Your task to perform on an android device: open app "Venmo" (install if not already installed) and go to login screen Image 0: 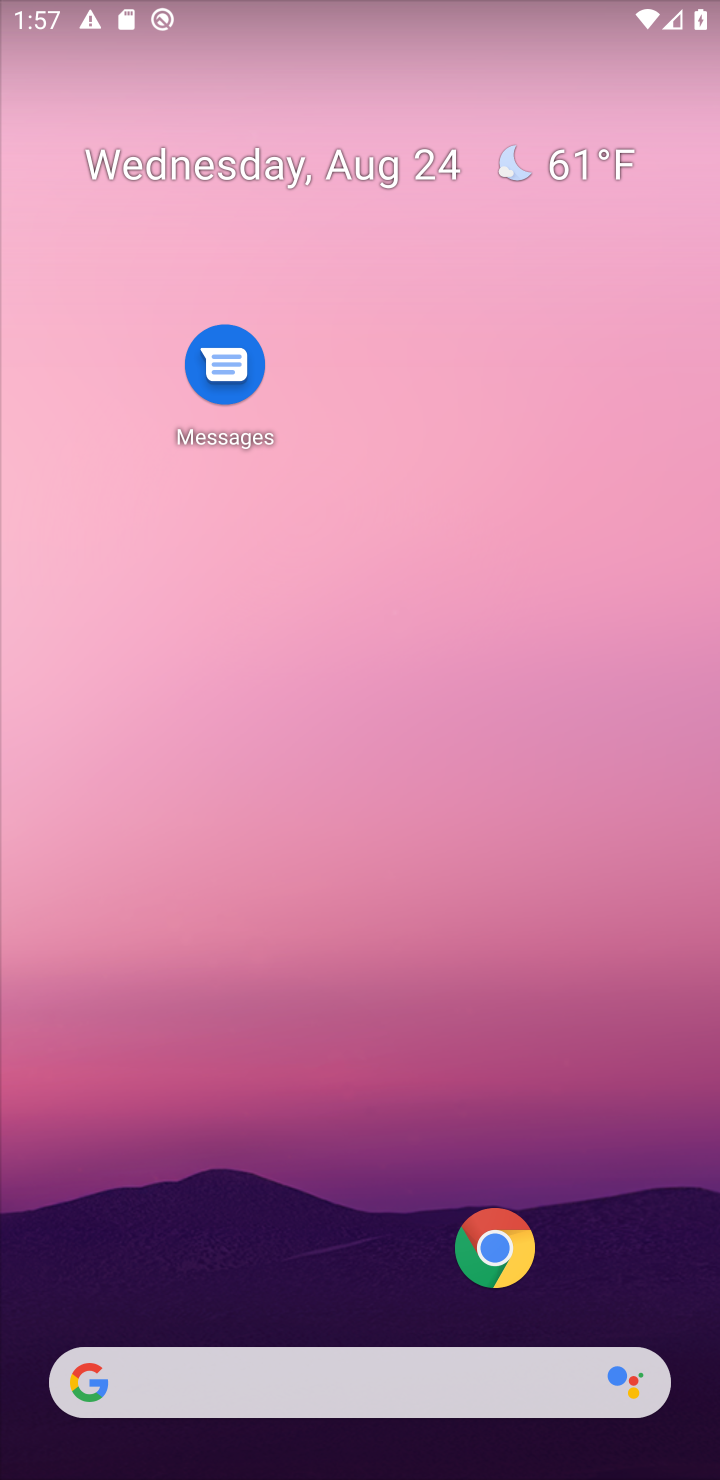
Step 0: drag from (333, 1243) to (347, 427)
Your task to perform on an android device: open app "Venmo" (install if not already installed) and go to login screen Image 1: 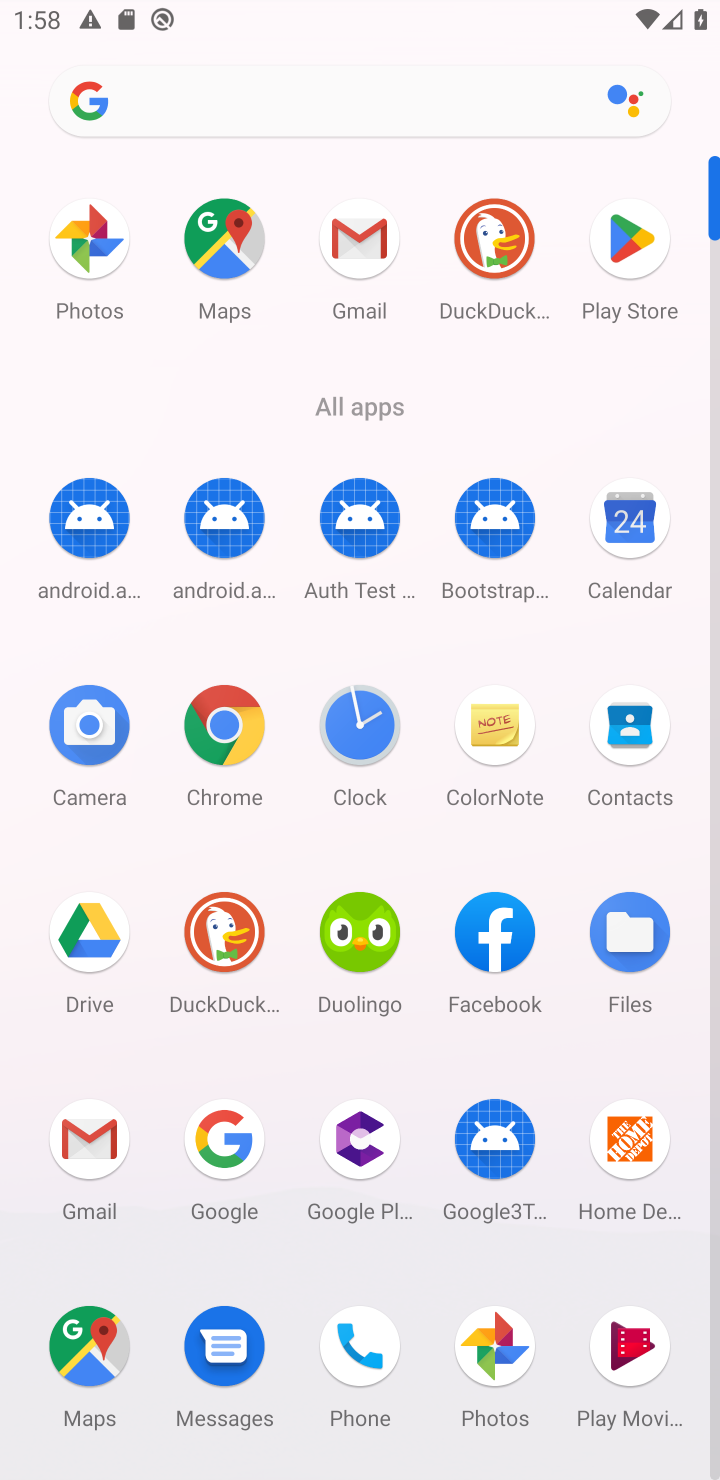
Step 1: click (615, 237)
Your task to perform on an android device: open app "Venmo" (install if not already installed) and go to login screen Image 2: 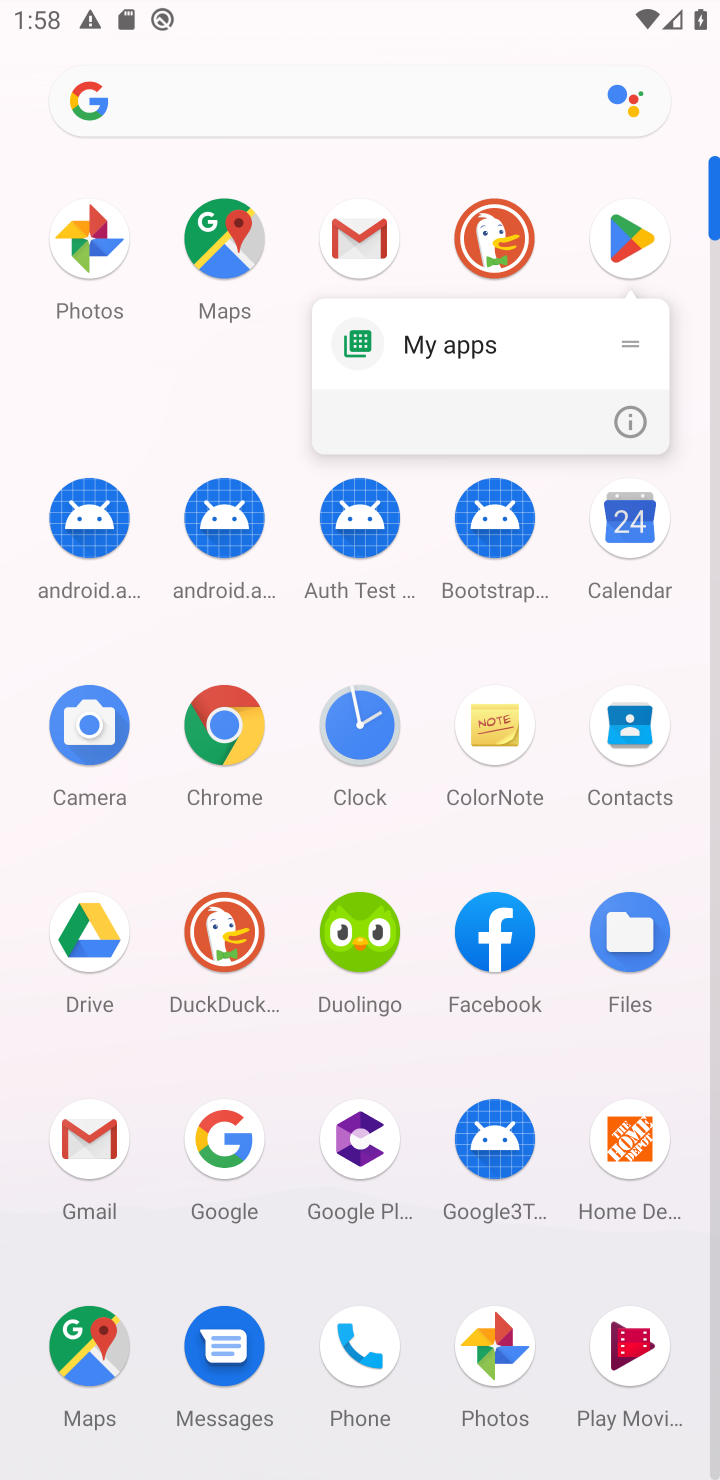
Step 2: click (615, 237)
Your task to perform on an android device: open app "Venmo" (install if not already installed) and go to login screen Image 3: 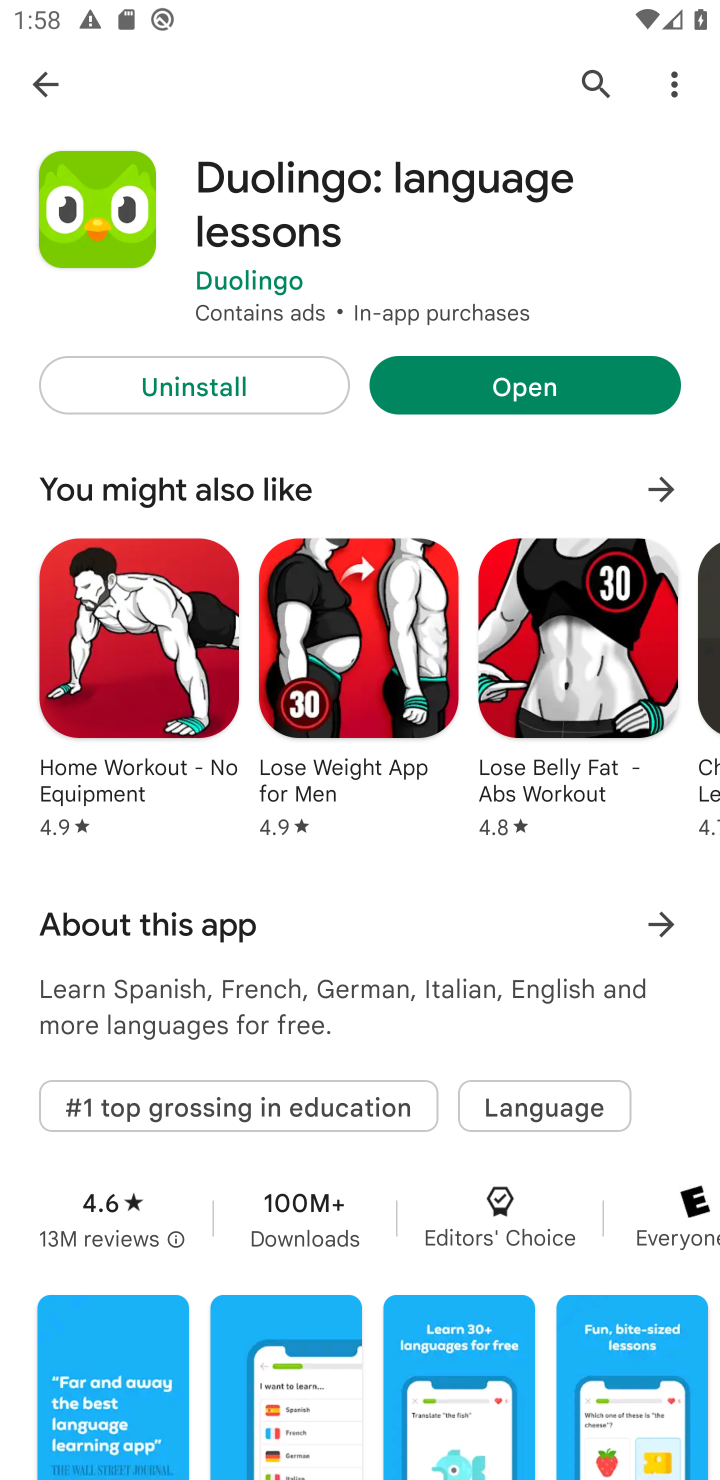
Step 3: click (66, 64)
Your task to perform on an android device: open app "Venmo" (install if not already installed) and go to login screen Image 4: 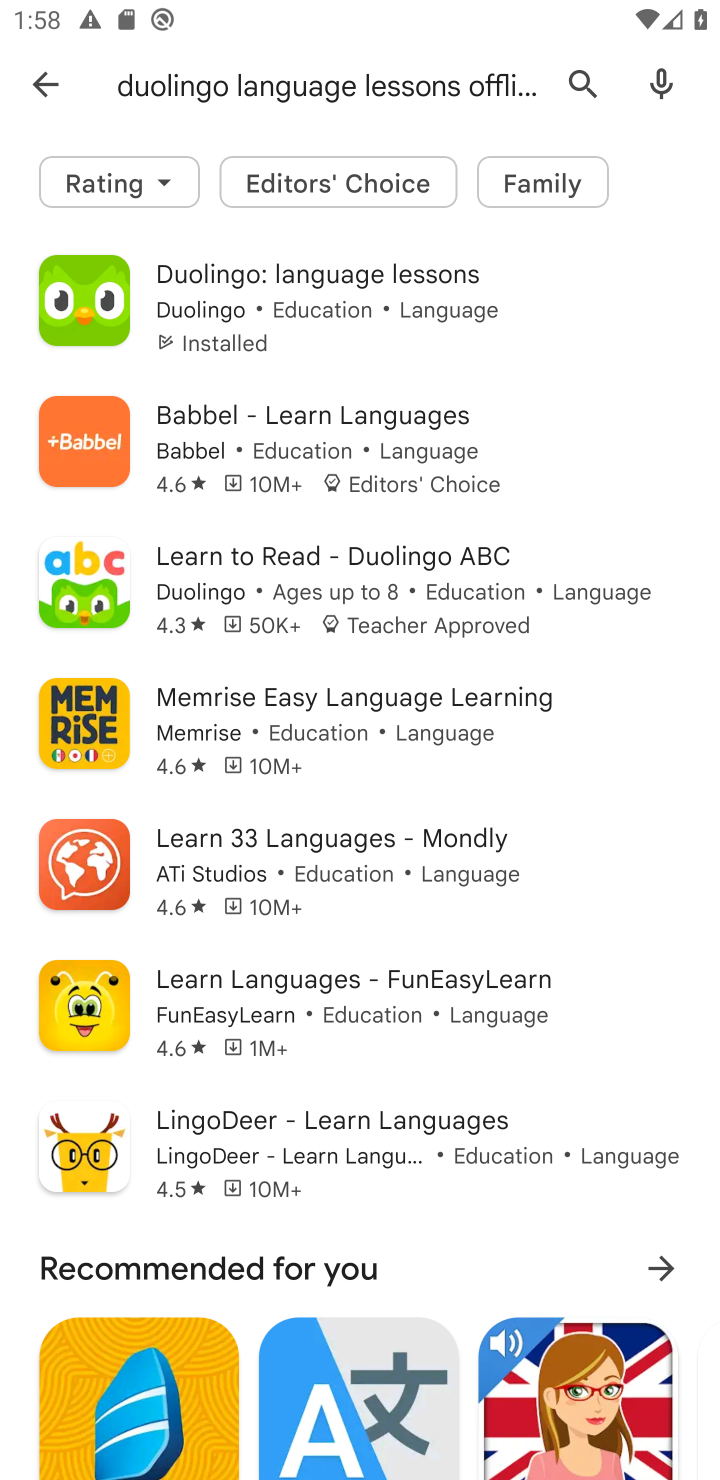
Step 4: click (62, 64)
Your task to perform on an android device: open app "Venmo" (install if not already installed) and go to login screen Image 5: 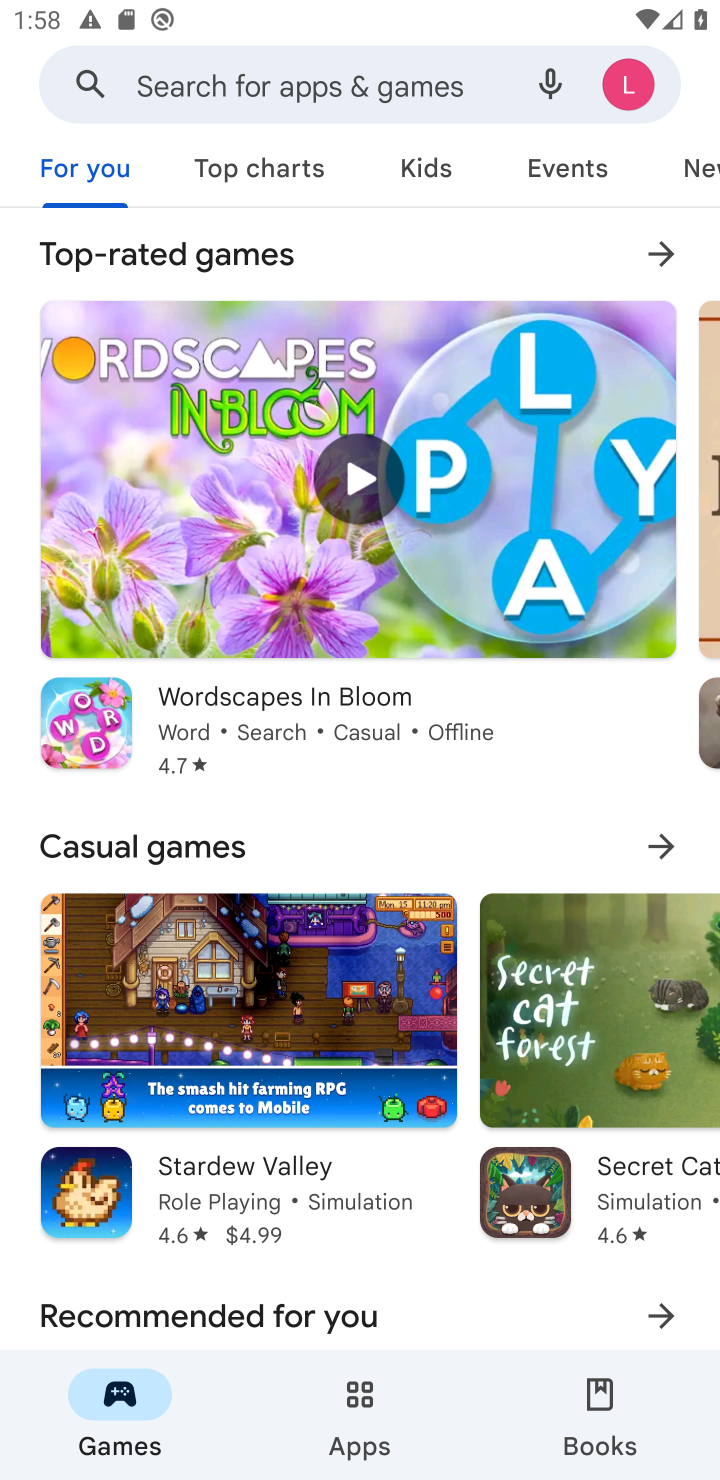
Step 5: click (392, 64)
Your task to perform on an android device: open app "Venmo" (install if not already installed) and go to login screen Image 6: 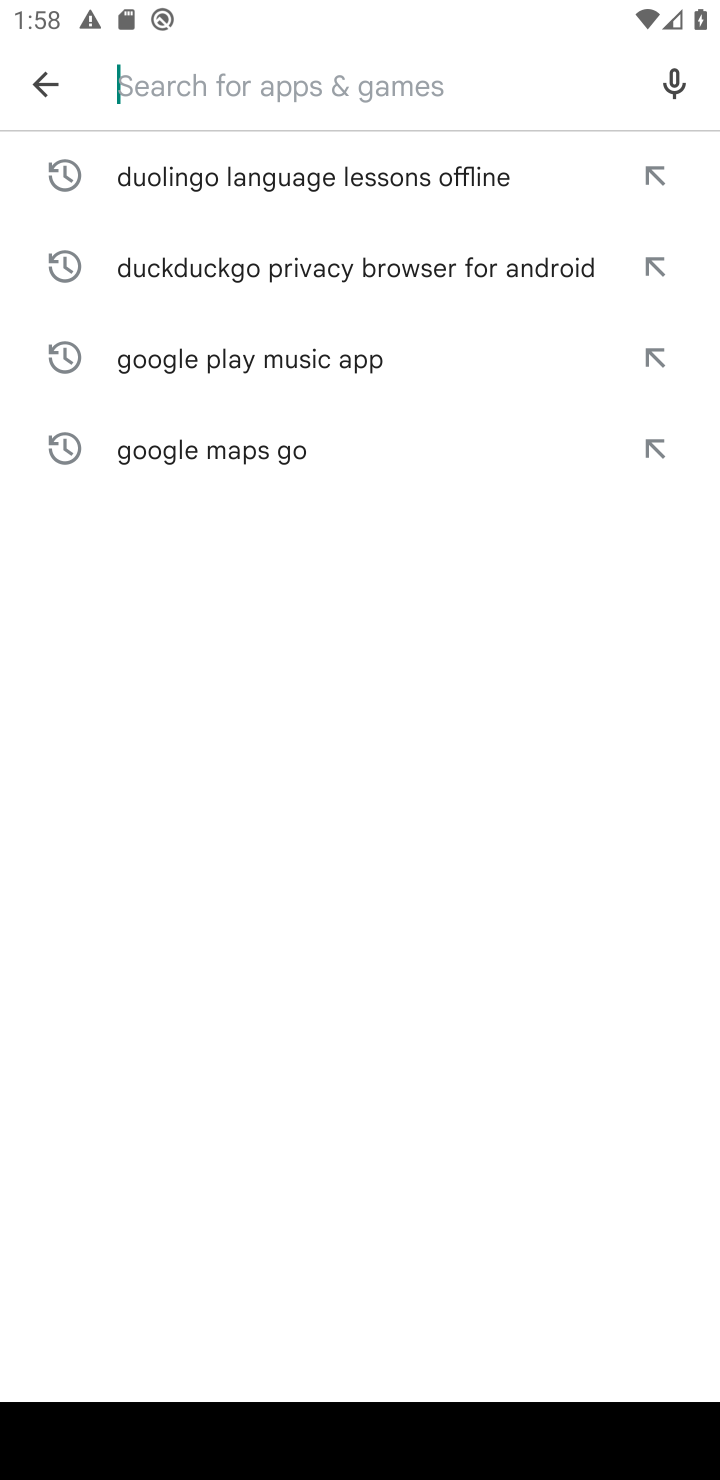
Step 6: type "Venmo "
Your task to perform on an android device: open app "Venmo" (install if not already installed) and go to login screen Image 7: 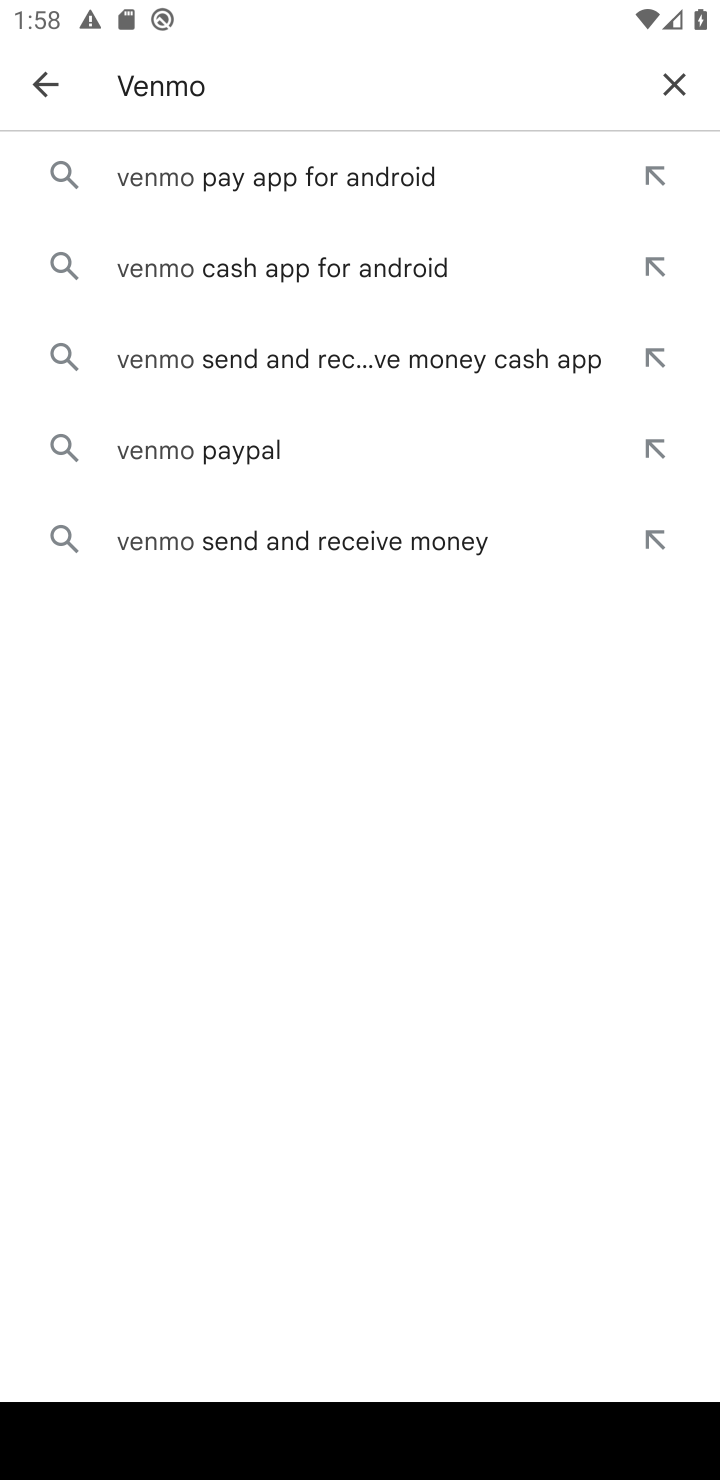
Step 7: click (262, 174)
Your task to perform on an android device: open app "Venmo" (install if not already installed) and go to login screen Image 8: 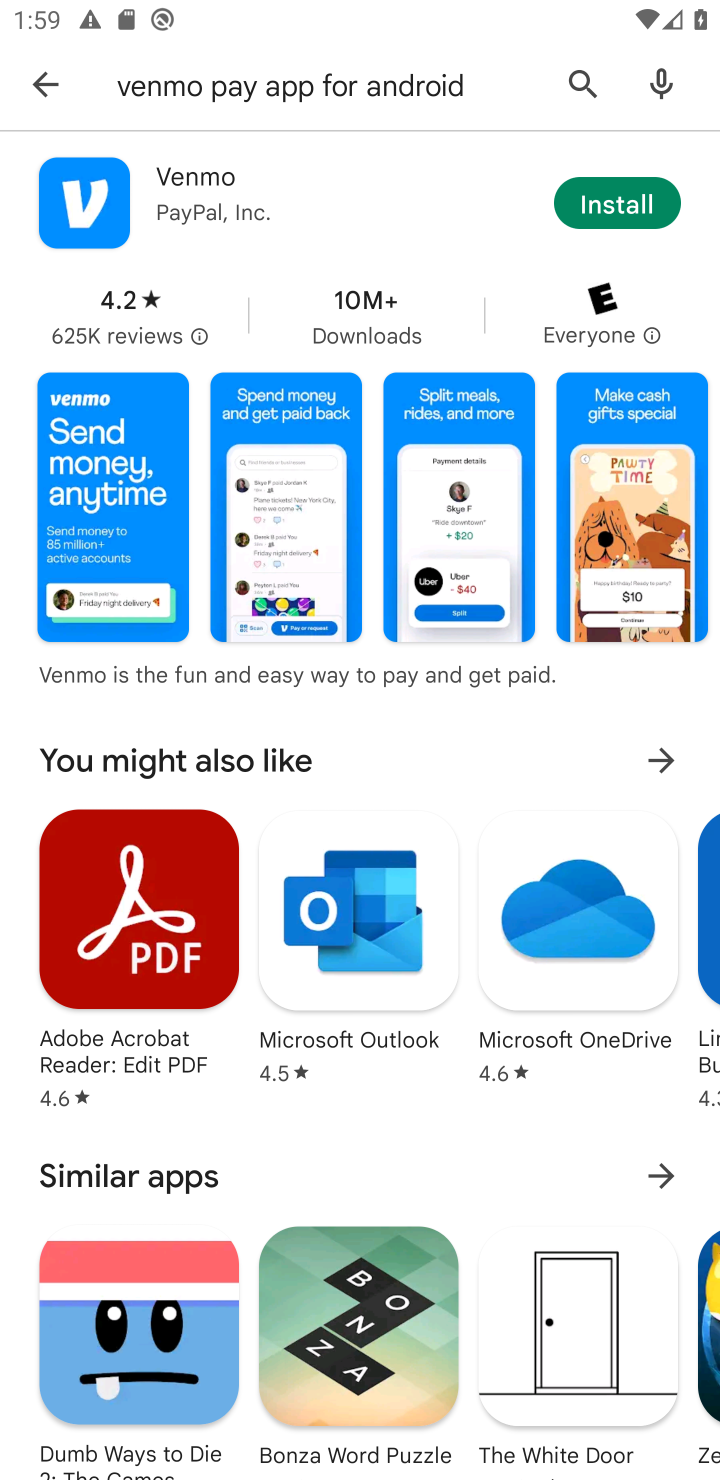
Step 8: click (611, 206)
Your task to perform on an android device: open app "Venmo" (install if not already installed) and go to login screen Image 9: 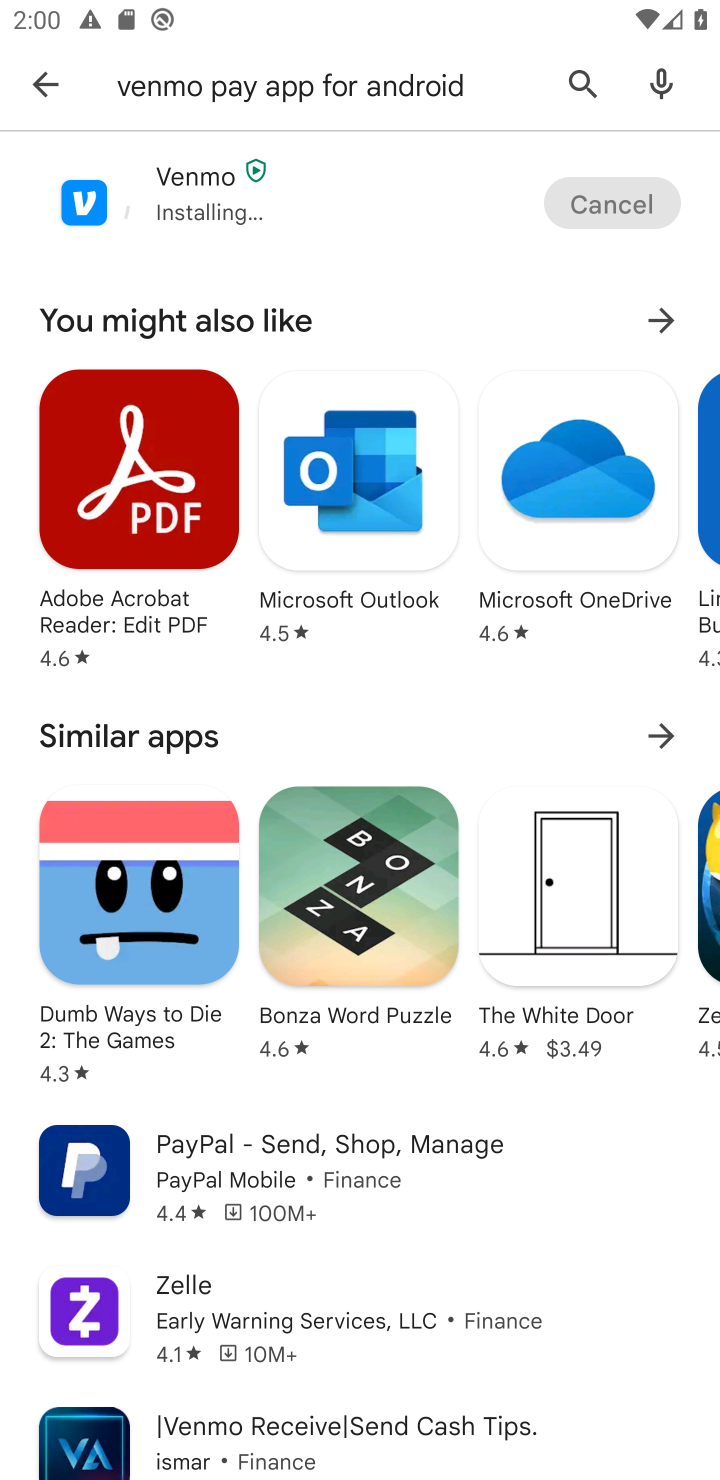
Step 9: task complete